Your task to perform on an android device: choose inbox layout in the gmail app Image 0: 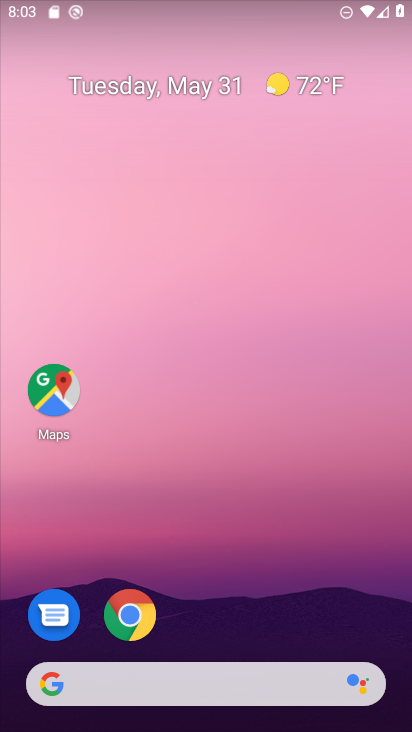
Step 0: drag from (281, 656) to (265, 3)
Your task to perform on an android device: choose inbox layout in the gmail app Image 1: 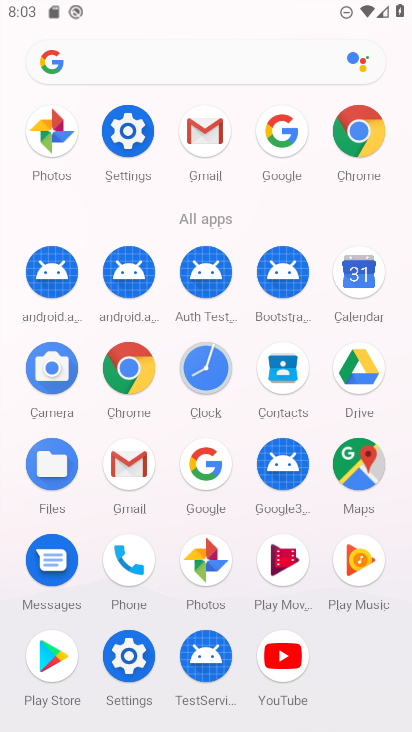
Step 1: click (197, 139)
Your task to perform on an android device: choose inbox layout in the gmail app Image 2: 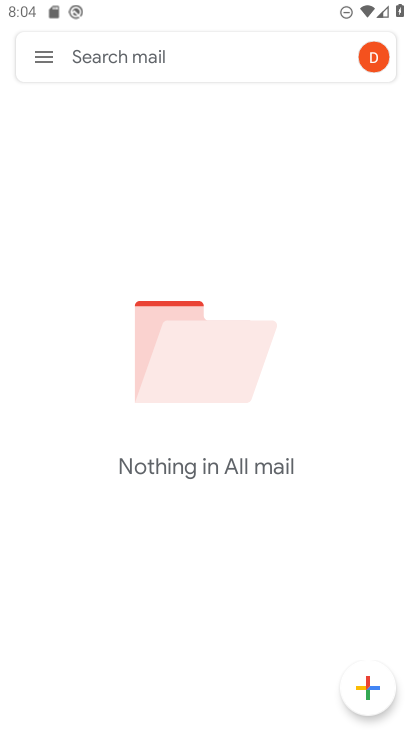
Step 2: click (42, 49)
Your task to perform on an android device: choose inbox layout in the gmail app Image 3: 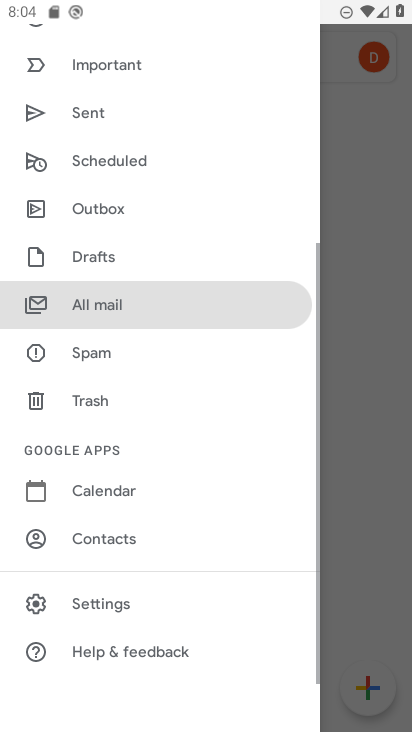
Step 3: click (95, 600)
Your task to perform on an android device: choose inbox layout in the gmail app Image 4: 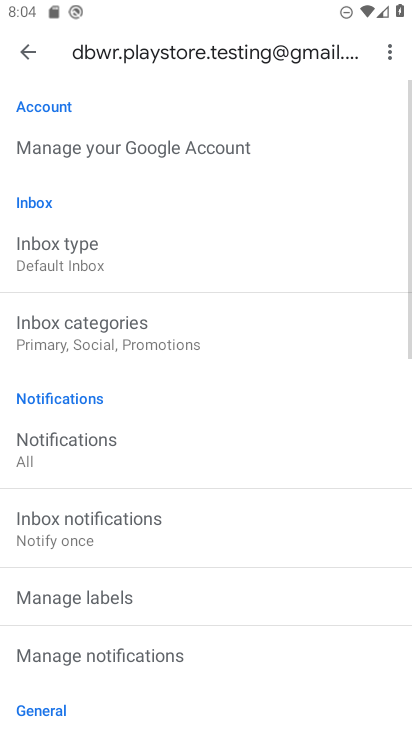
Step 4: click (131, 275)
Your task to perform on an android device: choose inbox layout in the gmail app Image 5: 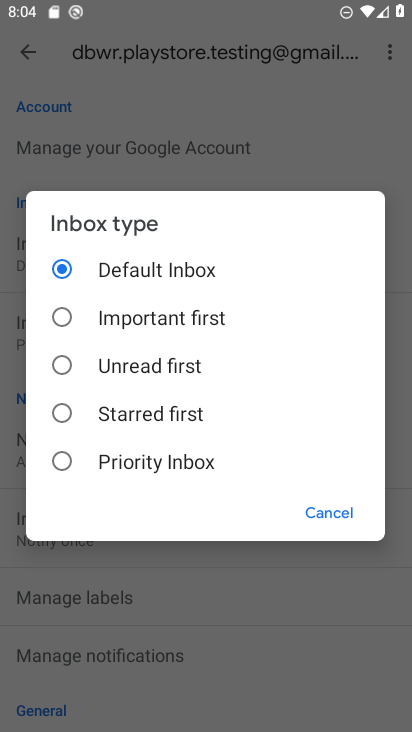
Step 5: click (121, 302)
Your task to perform on an android device: choose inbox layout in the gmail app Image 6: 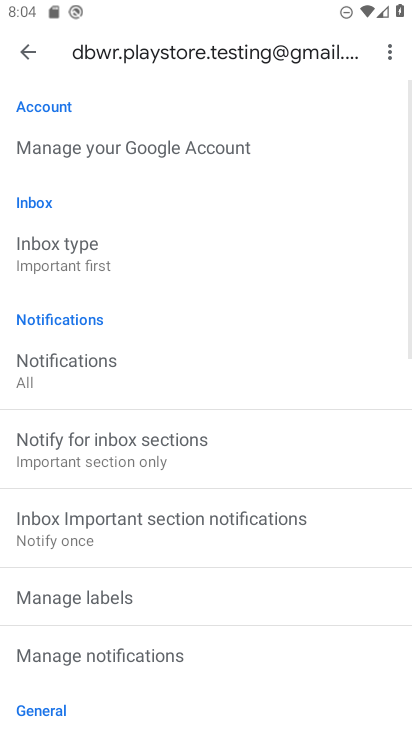
Step 6: task complete